Your task to perform on an android device: What is the recent news? Image 0: 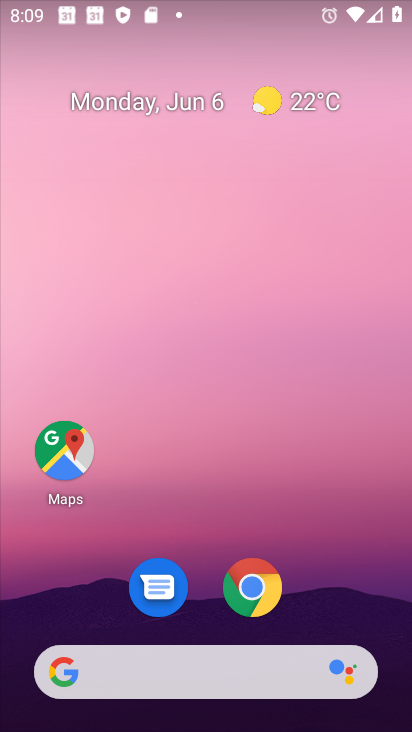
Step 0: drag from (258, 655) to (270, 358)
Your task to perform on an android device: What is the recent news? Image 1: 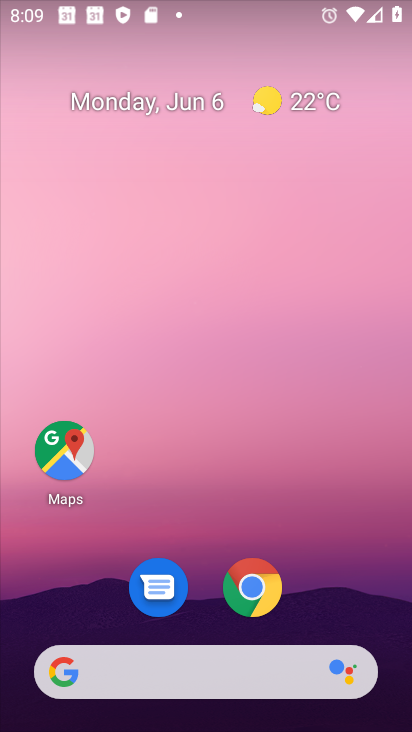
Step 1: drag from (184, 660) to (190, 300)
Your task to perform on an android device: What is the recent news? Image 2: 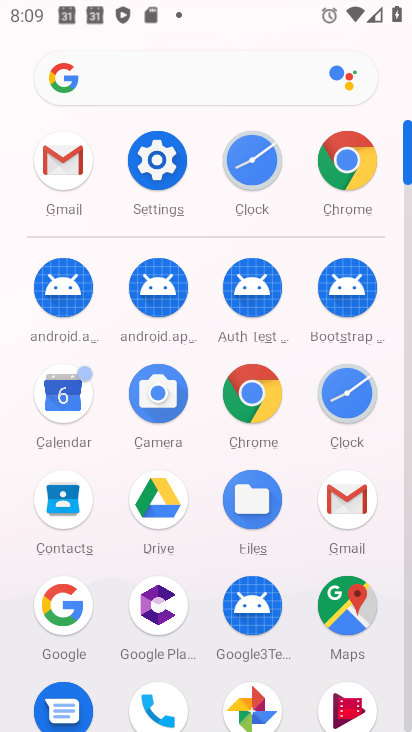
Step 2: click (67, 603)
Your task to perform on an android device: What is the recent news? Image 3: 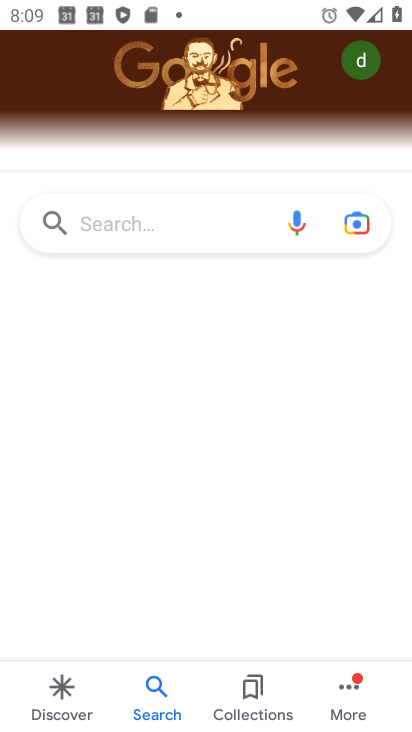
Step 3: click (137, 240)
Your task to perform on an android device: What is the recent news? Image 4: 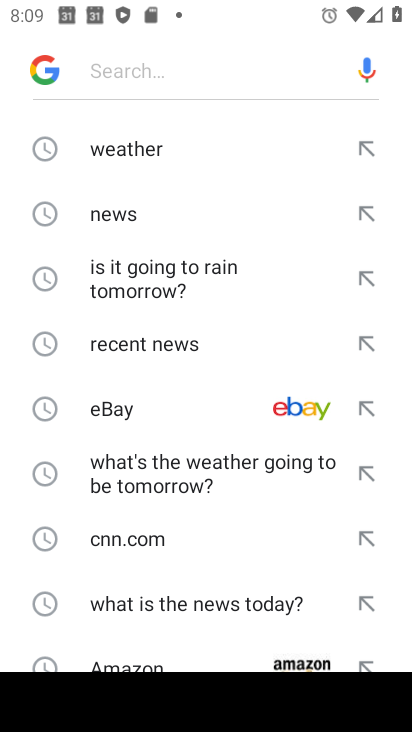
Step 4: drag from (179, 619) to (172, 240)
Your task to perform on an android device: What is the recent news? Image 5: 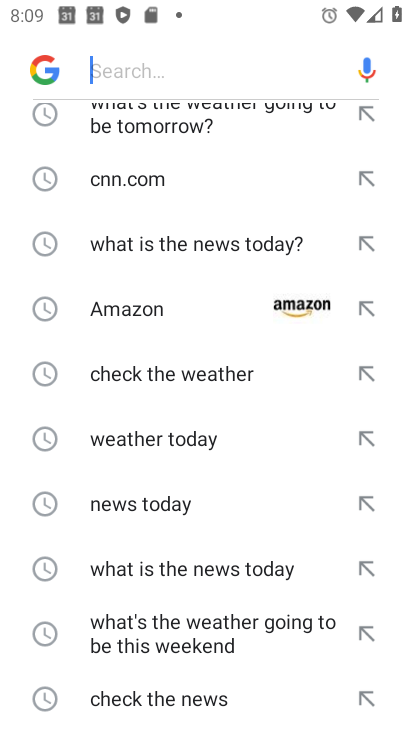
Step 5: drag from (179, 714) to (169, 365)
Your task to perform on an android device: What is the recent news? Image 6: 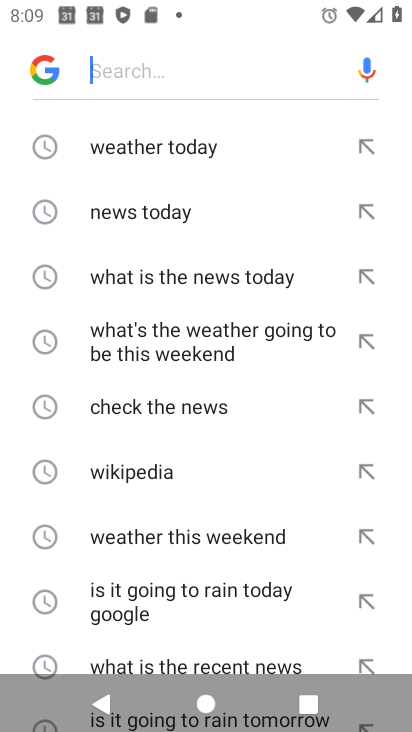
Step 6: drag from (175, 625) to (175, 304)
Your task to perform on an android device: What is the recent news? Image 7: 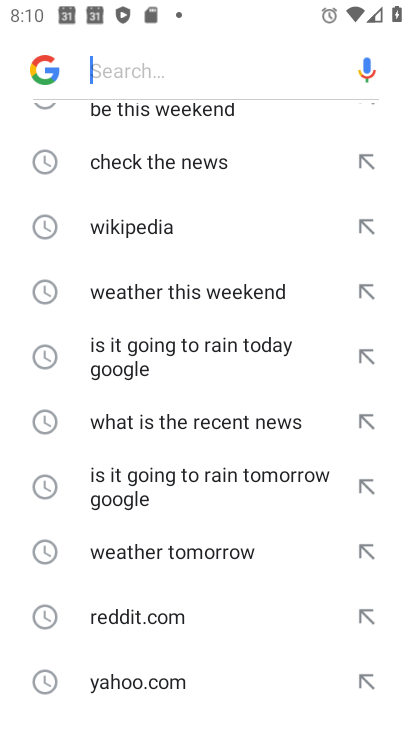
Step 7: click (179, 414)
Your task to perform on an android device: What is the recent news? Image 8: 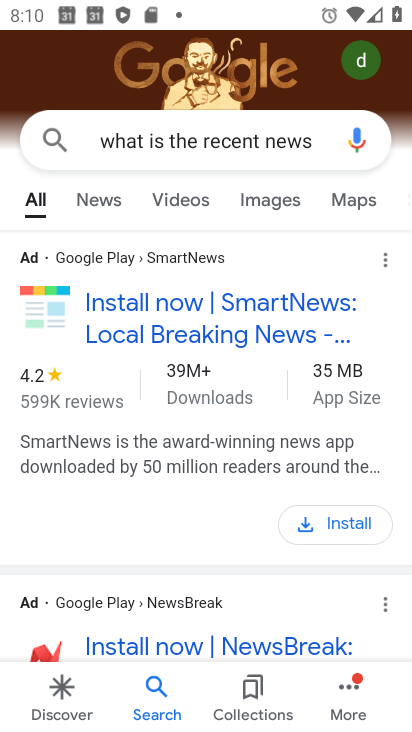
Step 8: task complete